Your task to perform on an android device: Go to settings Image 0: 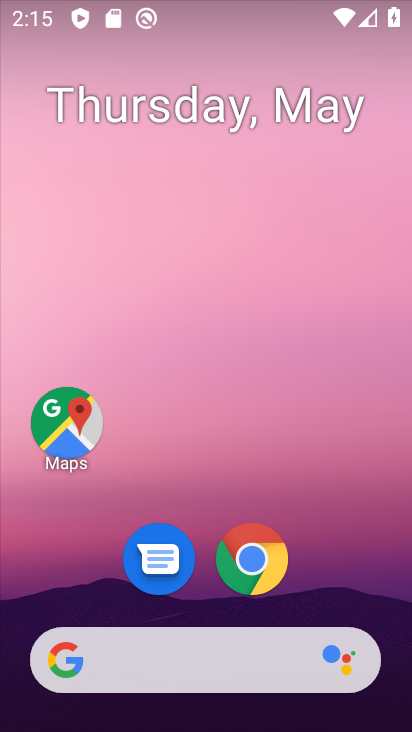
Step 0: drag from (221, 598) to (247, 69)
Your task to perform on an android device: Go to settings Image 1: 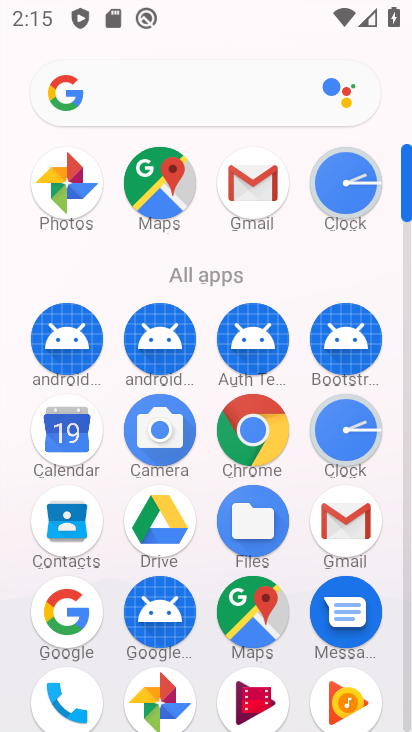
Step 1: drag from (193, 467) to (209, 222)
Your task to perform on an android device: Go to settings Image 2: 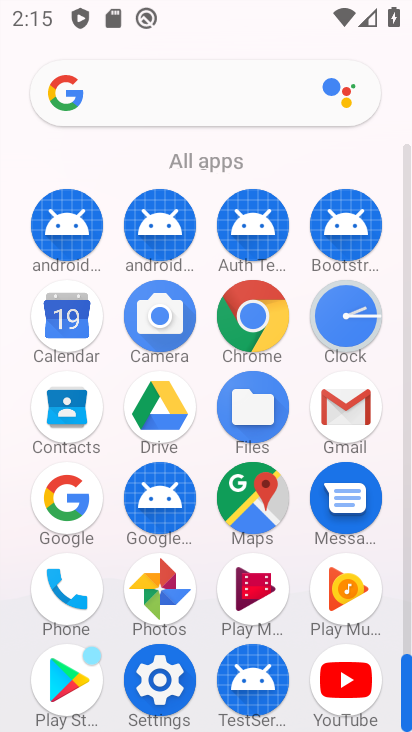
Step 2: click (169, 689)
Your task to perform on an android device: Go to settings Image 3: 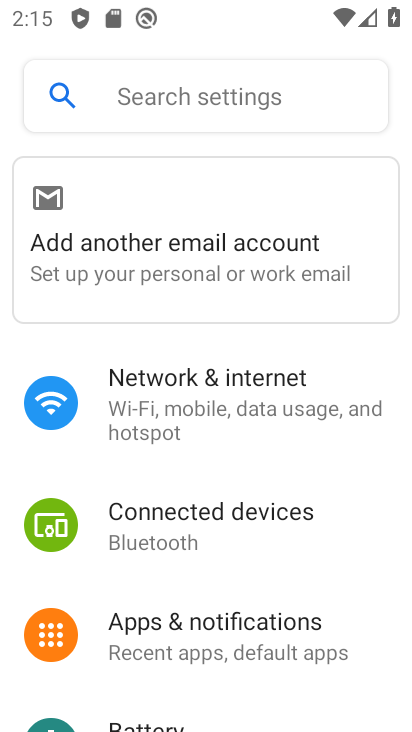
Step 3: task complete